Your task to perform on an android device: open a new tab in the chrome app Image 0: 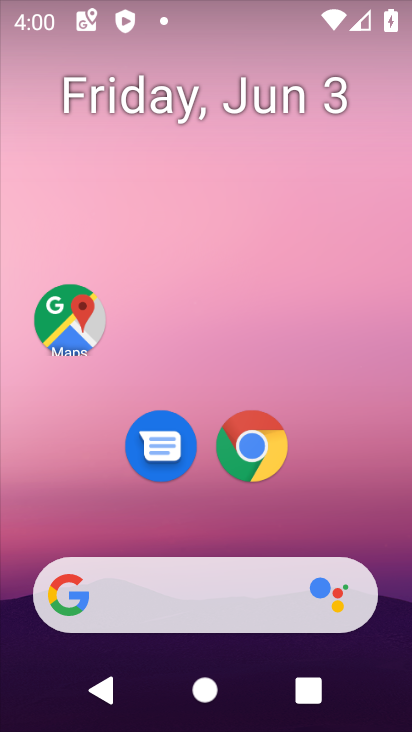
Step 0: task complete